Your task to perform on an android device: Do I have any events this weekend? Image 0: 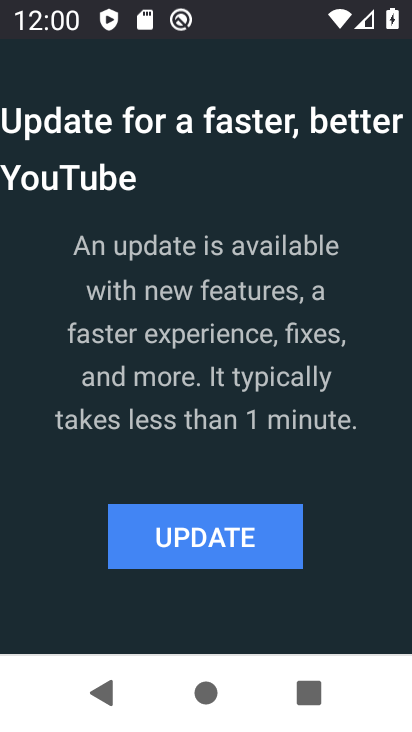
Step 0: press home button
Your task to perform on an android device: Do I have any events this weekend? Image 1: 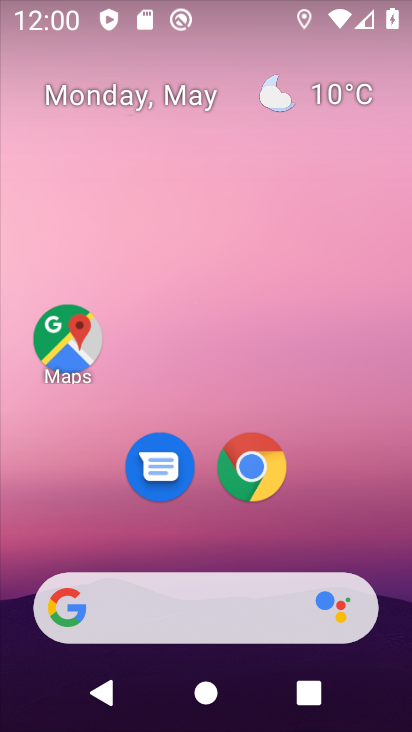
Step 1: drag from (332, 512) to (386, 185)
Your task to perform on an android device: Do I have any events this weekend? Image 2: 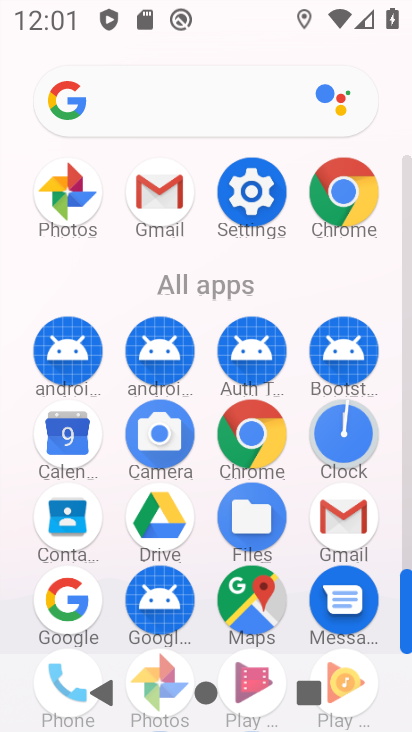
Step 2: click (73, 440)
Your task to perform on an android device: Do I have any events this weekend? Image 3: 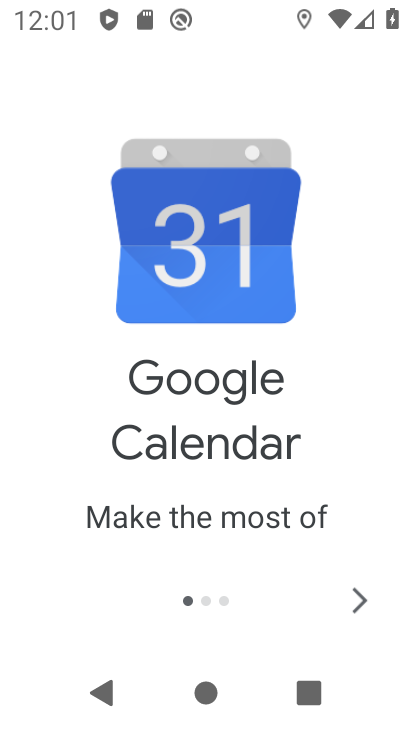
Step 3: click (367, 603)
Your task to perform on an android device: Do I have any events this weekend? Image 4: 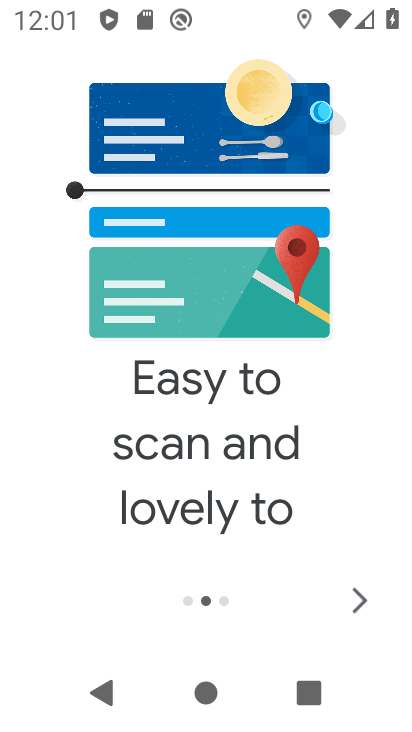
Step 4: click (366, 604)
Your task to perform on an android device: Do I have any events this weekend? Image 5: 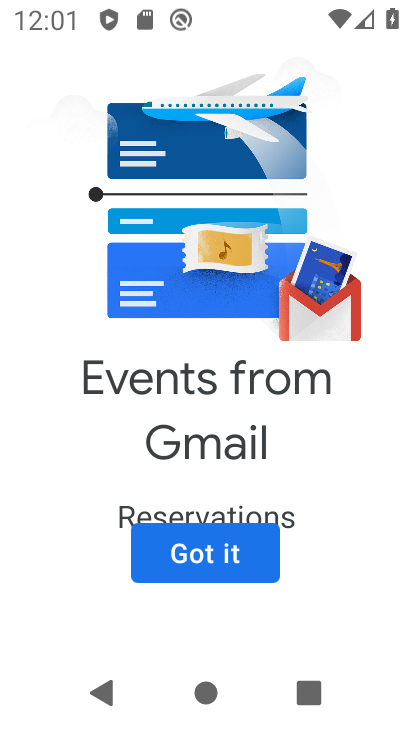
Step 5: click (365, 603)
Your task to perform on an android device: Do I have any events this weekend? Image 6: 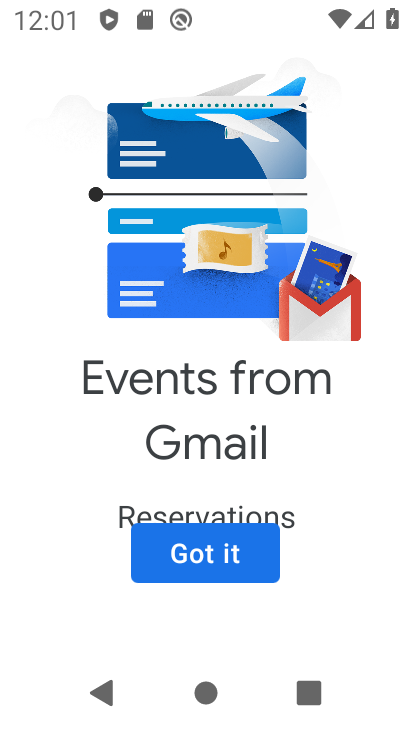
Step 6: click (244, 554)
Your task to perform on an android device: Do I have any events this weekend? Image 7: 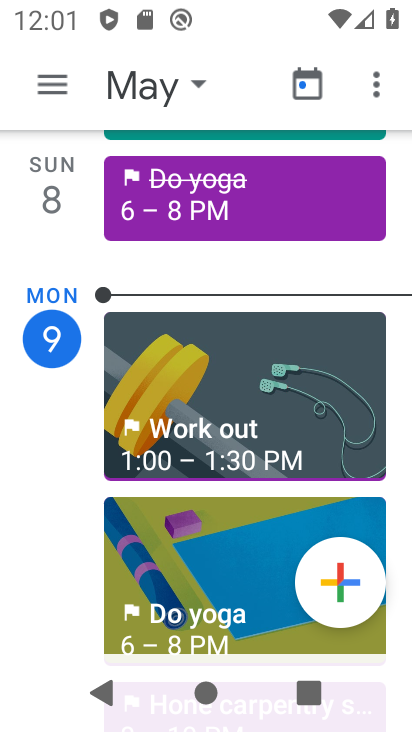
Step 7: drag from (52, 562) to (83, 366)
Your task to perform on an android device: Do I have any events this weekend? Image 8: 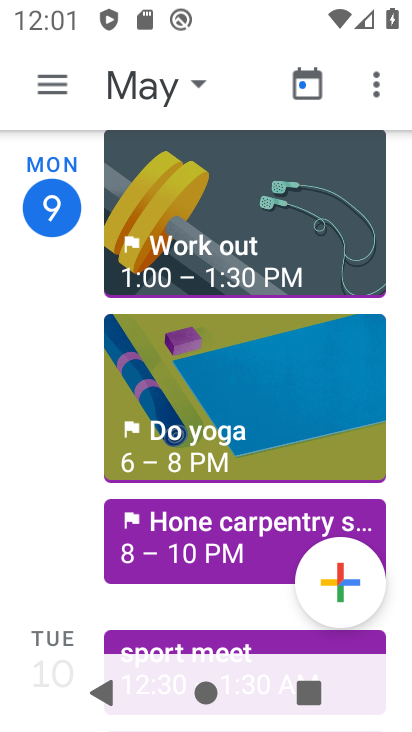
Step 8: drag from (65, 641) to (104, 344)
Your task to perform on an android device: Do I have any events this weekend? Image 9: 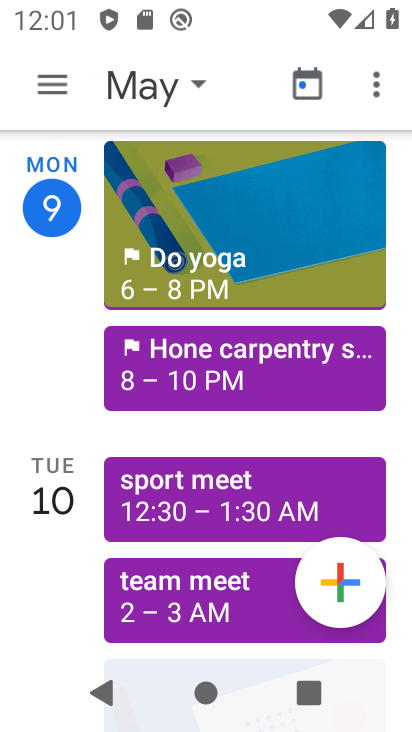
Step 9: click (131, 480)
Your task to perform on an android device: Do I have any events this weekend? Image 10: 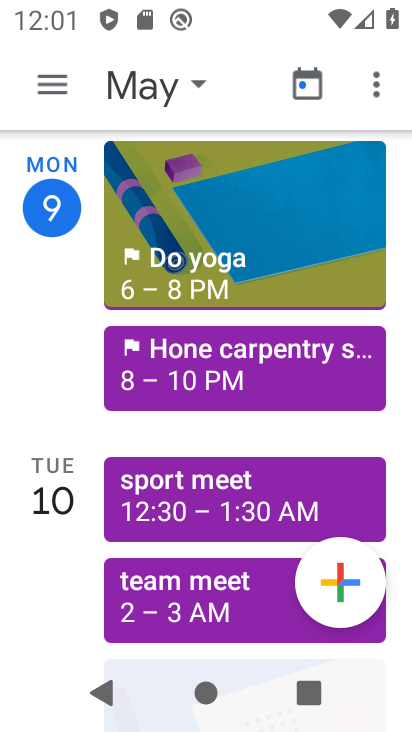
Step 10: click (130, 490)
Your task to perform on an android device: Do I have any events this weekend? Image 11: 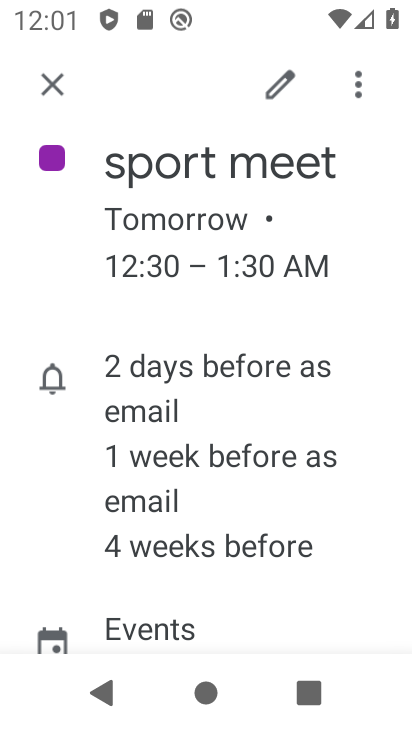
Step 11: task complete